Your task to perform on an android device: Open calendar and show me the fourth week of next month Image 0: 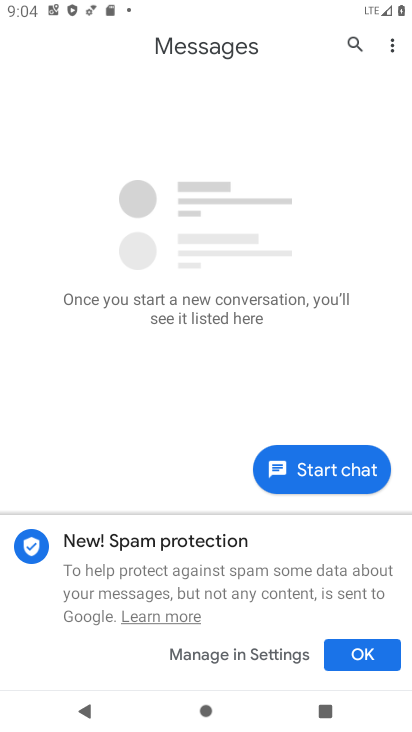
Step 0: press home button
Your task to perform on an android device: Open calendar and show me the fourth week of next month Image 1: 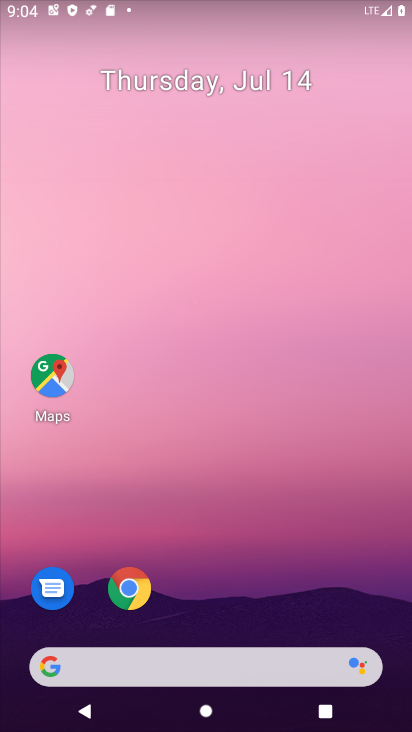
Step 1: drag from (241, 144) to (206, 29)
Your task to perform on an android device: Open calendar and show me the fourth week of next month Image 2: 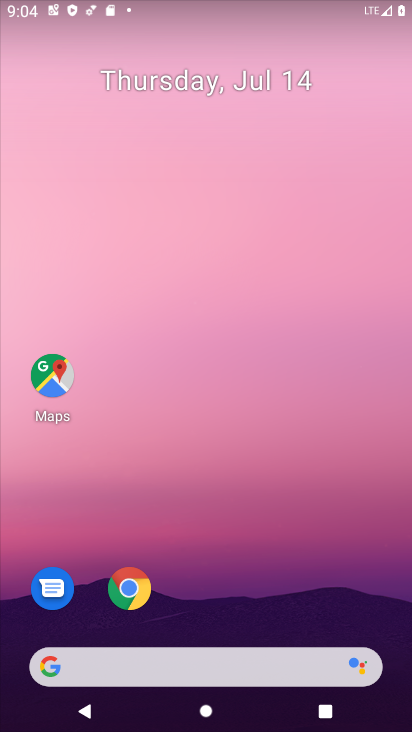
Step 2: drag from (348, 613) to (221, 1)
Your task to perform on an android device: Open calendar and show me the fourth week of next month Image 3: 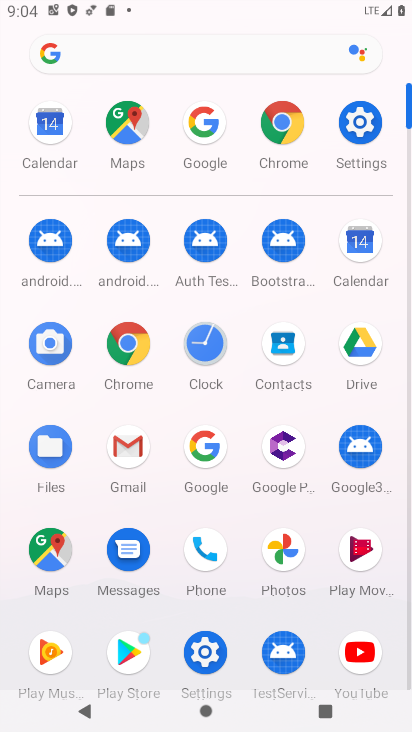
Step 3: click (373, 235)
Your task to perform on an android device: Open calendar and show me the fourth week of next month Image 4: 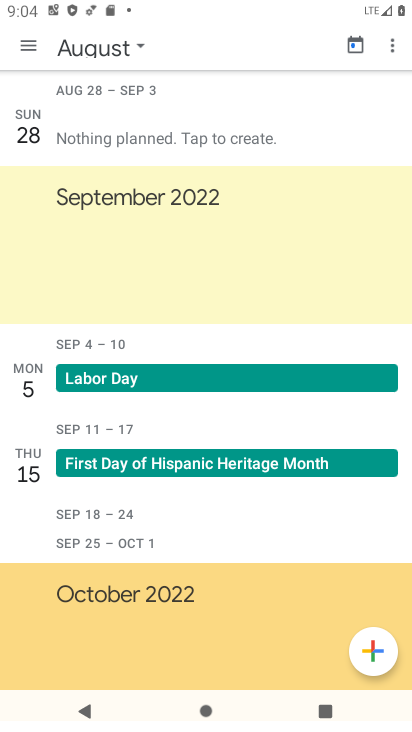
Step 4: click (103, 59)
Your task to perform on an android device: Open calendar and show me the fourth week of next month Image 5: 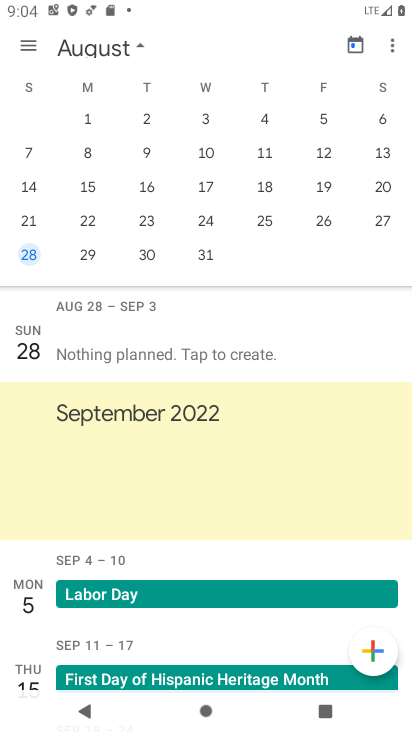
Step 5: drag from (351, 162) to (0, 195)
Your task to perform on an android device: Open calendar and show me the fourth week of next month Image 6: 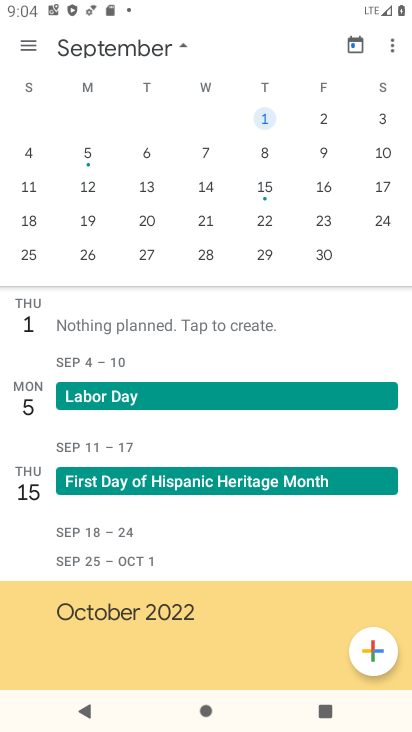
Step 6: click (28, 256)
Your task to perform on an android device: Open calendar and show me the fourth week of next month Image 7: 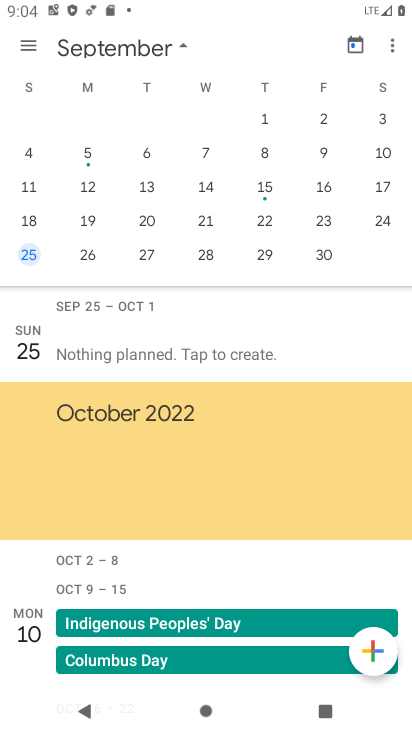
Step 7: task complete